Your task to perform on an android device: Set the phone to "Do not disturb". Image 0: 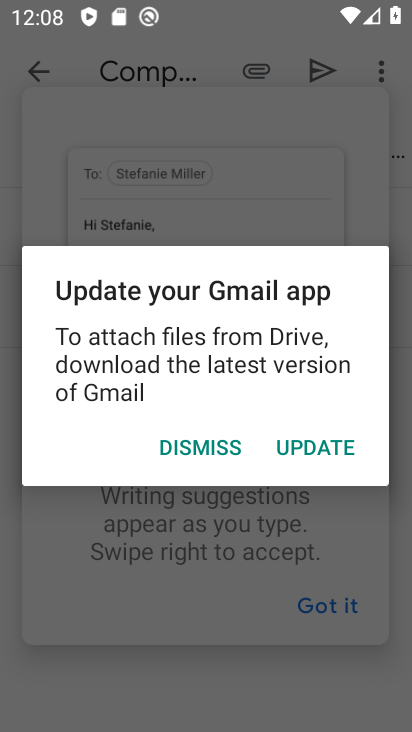
Step 0: press home button
Your task to perform on an android device: Set the phone to "Do not disturb". Image 1: 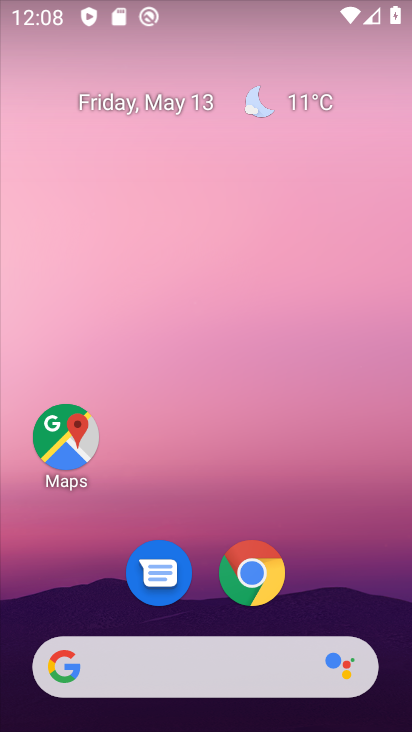
Step 1: drag from (208, 694) to (280, 257)
Your task to perform on an android device: Set the phone to "Do not disturb". Image 2: 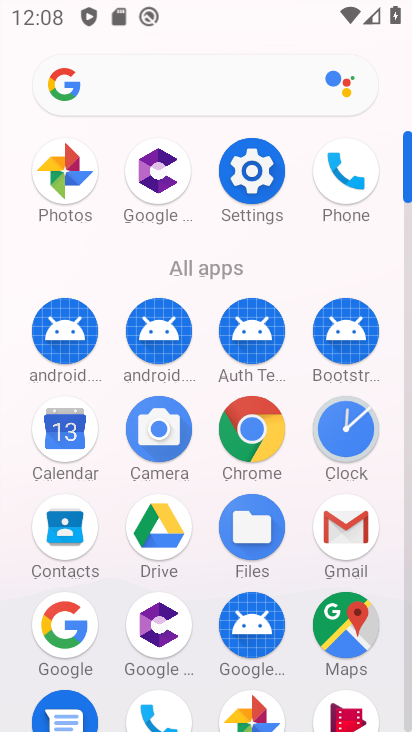
Step 2: click (261, 192)
Your task to perform on an android device: Set the phone to "Do not disturb". Image 3: 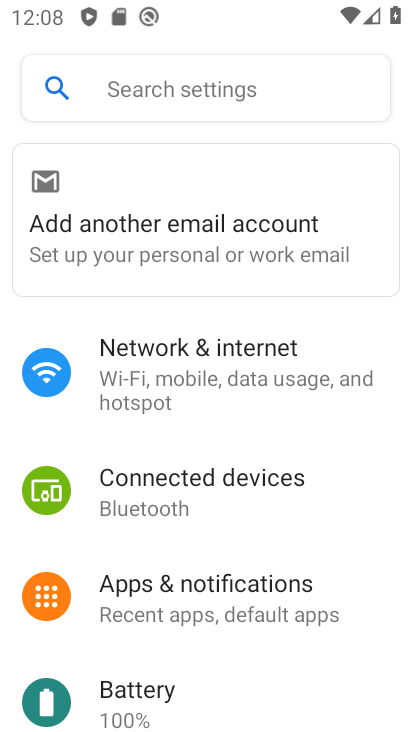
Step 3: click (161, 88)
Your task to perform on an android device: Set the phone to "Do not disturb". Image 4: 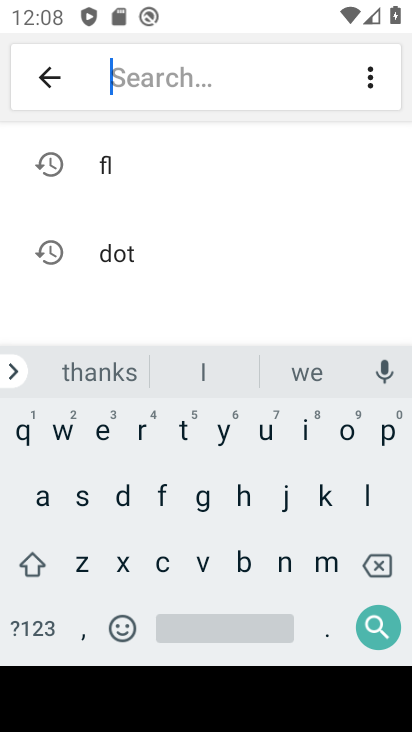
Step 4: click (121, 500)
Your task to perform on an android device: Set the phone to "Do not disturb". Image 5: 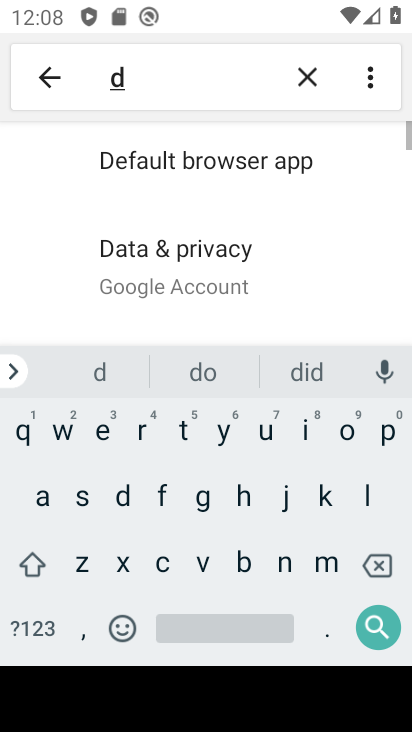
Step 5: click (277, 563)
Your task to perform on an android device: Set the phone to "Do not disturb". Image 6: 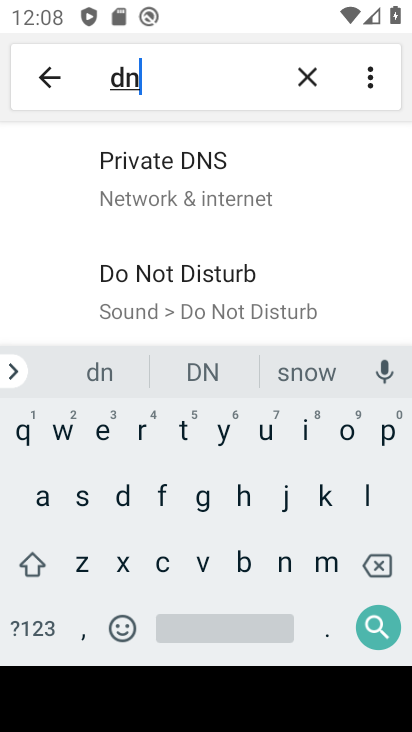
Step 6: click (145, 275)
Your task to perform on an android device: Set the phone to "Do not disturb". Image 7: 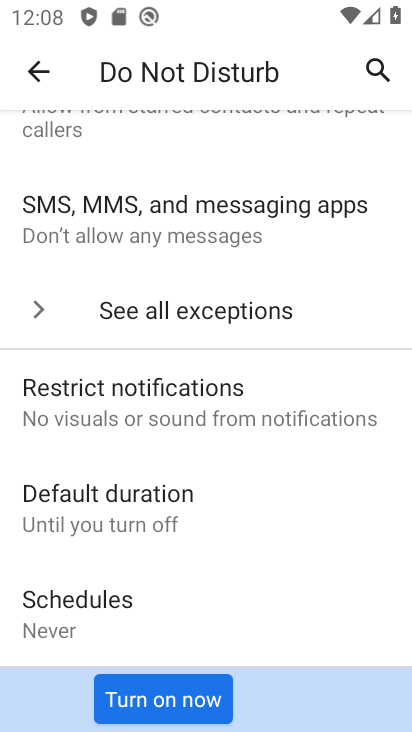
Step 7: click (149, 698)
Your task to perform on an android device: Set the phone to "Do not disturb". Image 8: 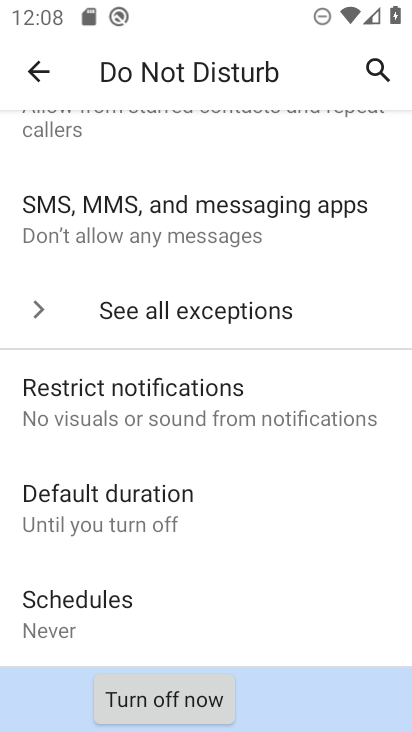
Step 8: task complete